Your task to perform on an android device: Open Chrome and go to settings Image 0: 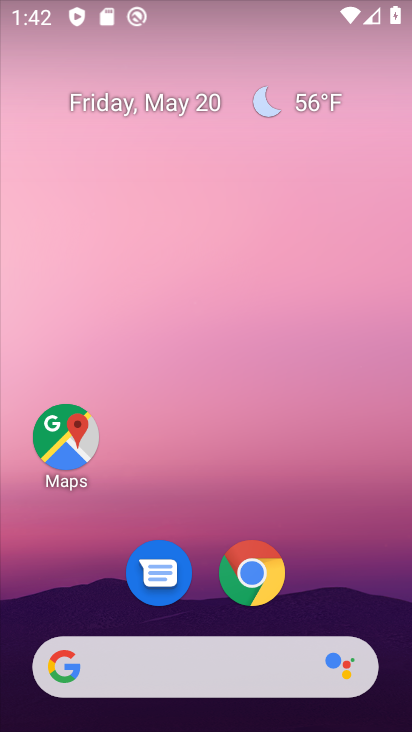
Step 0: drag from (390, 648) to (328, 69)
Your task to perform on an android device: Open Chrome and go to settings Image 1: 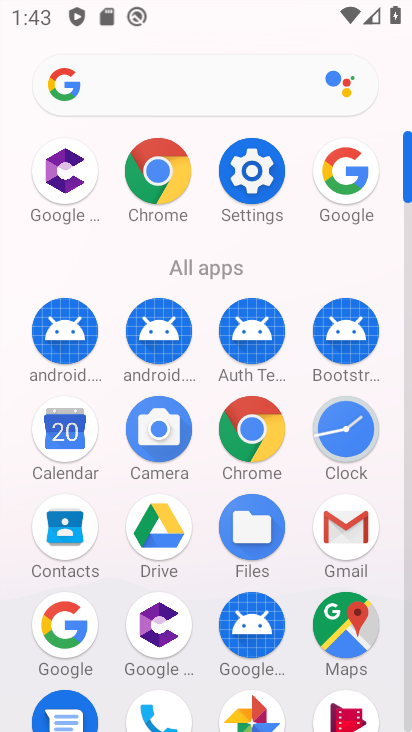
Step 1: click (169, 171)
Your task to perform on an android device: Open Chrome and go to settings Image 2: 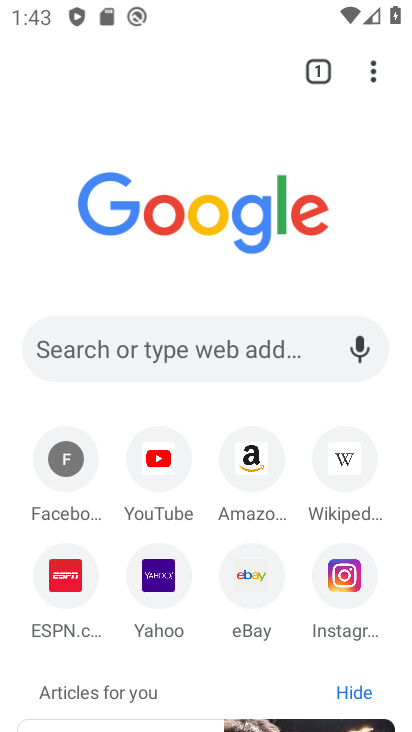
Step 2: click (373, 68)
Your task to perform on an android device: Open Chrome and go to settings Image 3: 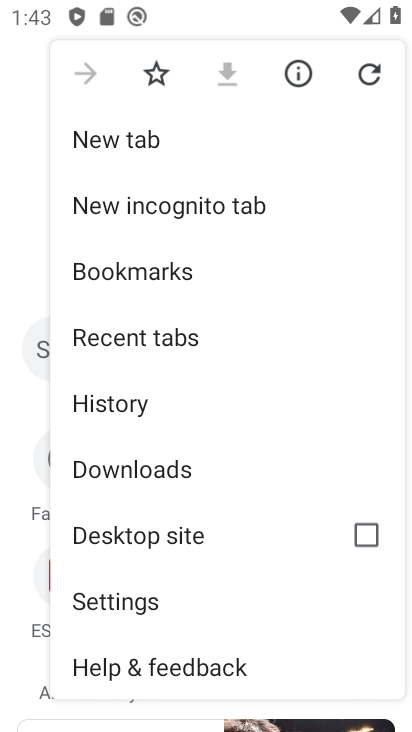
Step 3: click (162, 597)
Your task to perform on an android device: Open Chrome and go to settings Image 4: 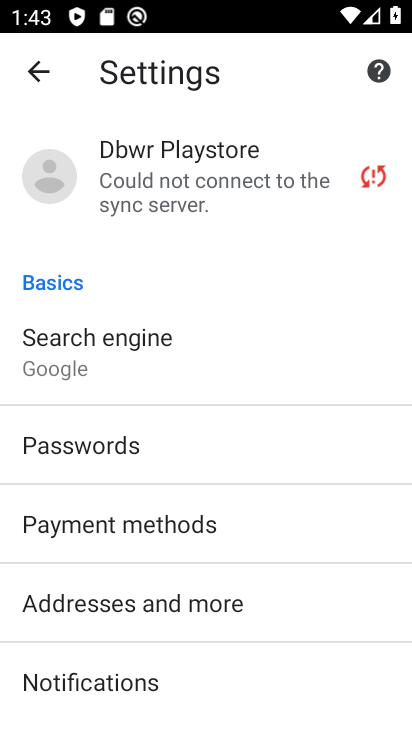
Step 4: task complete